Your task to perform on an android device: Add "macbook air" to the cart on newegg Image 0: 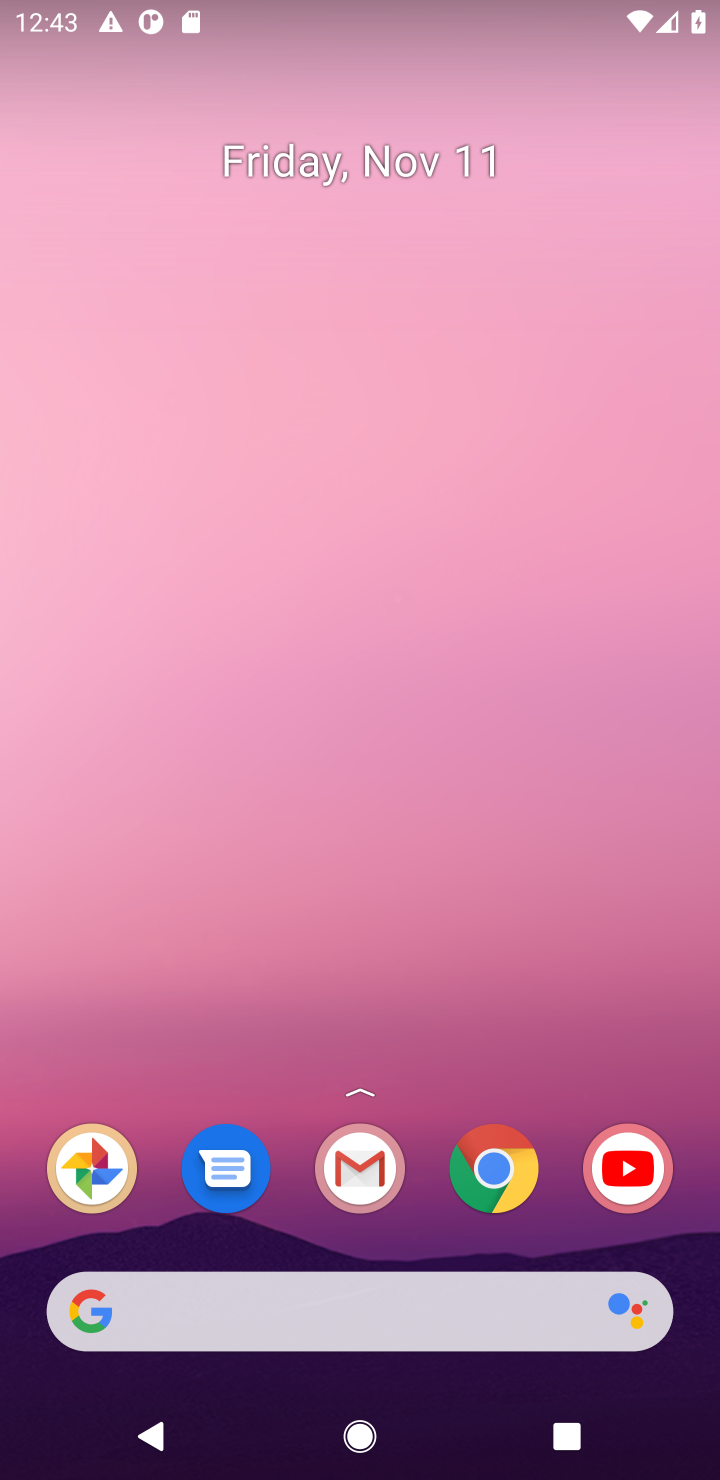
Step 0: click (502, 1170)
Your task to perform on an android device: Add "macbook air" to the cart on newegg Image 1: 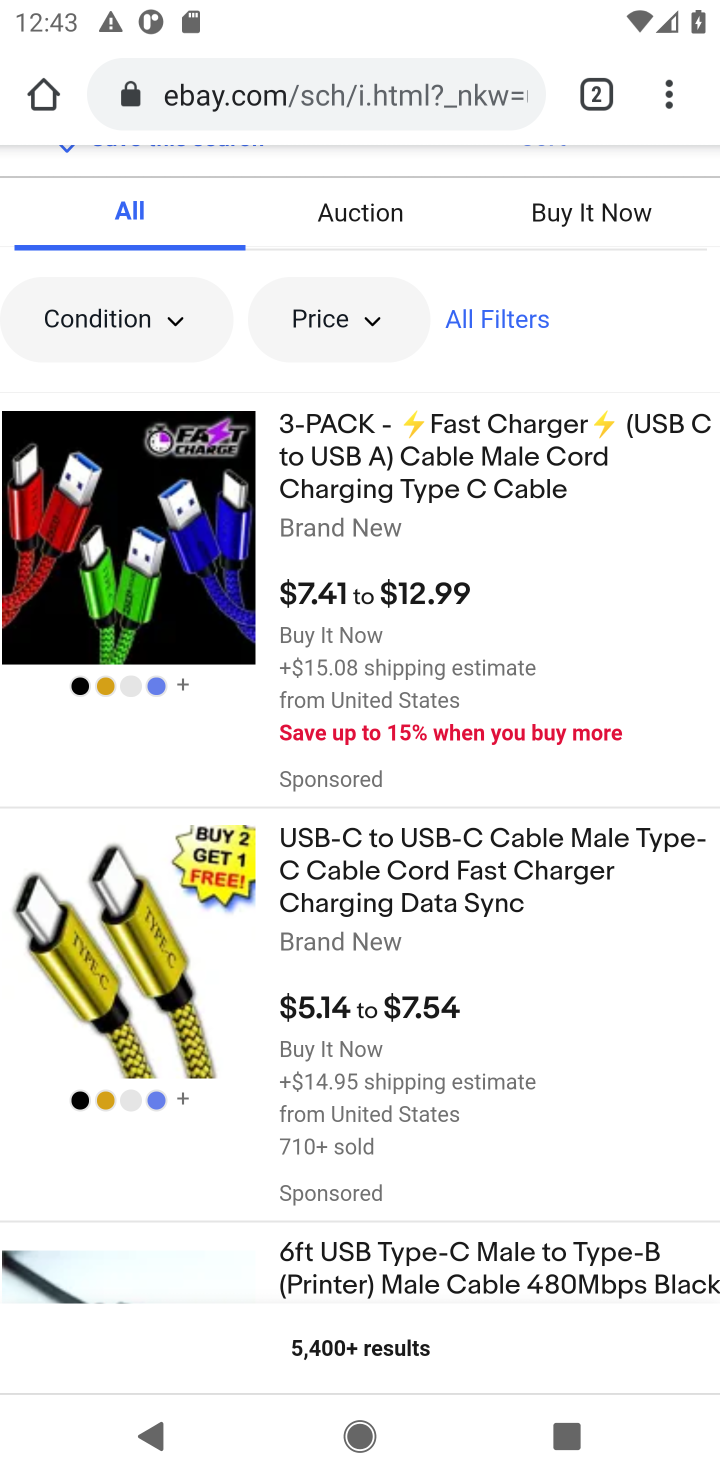
Step 1: click (300, 108)
Your task to perform on an android device: Add "macbook air" to the cart on newegg Image 2: 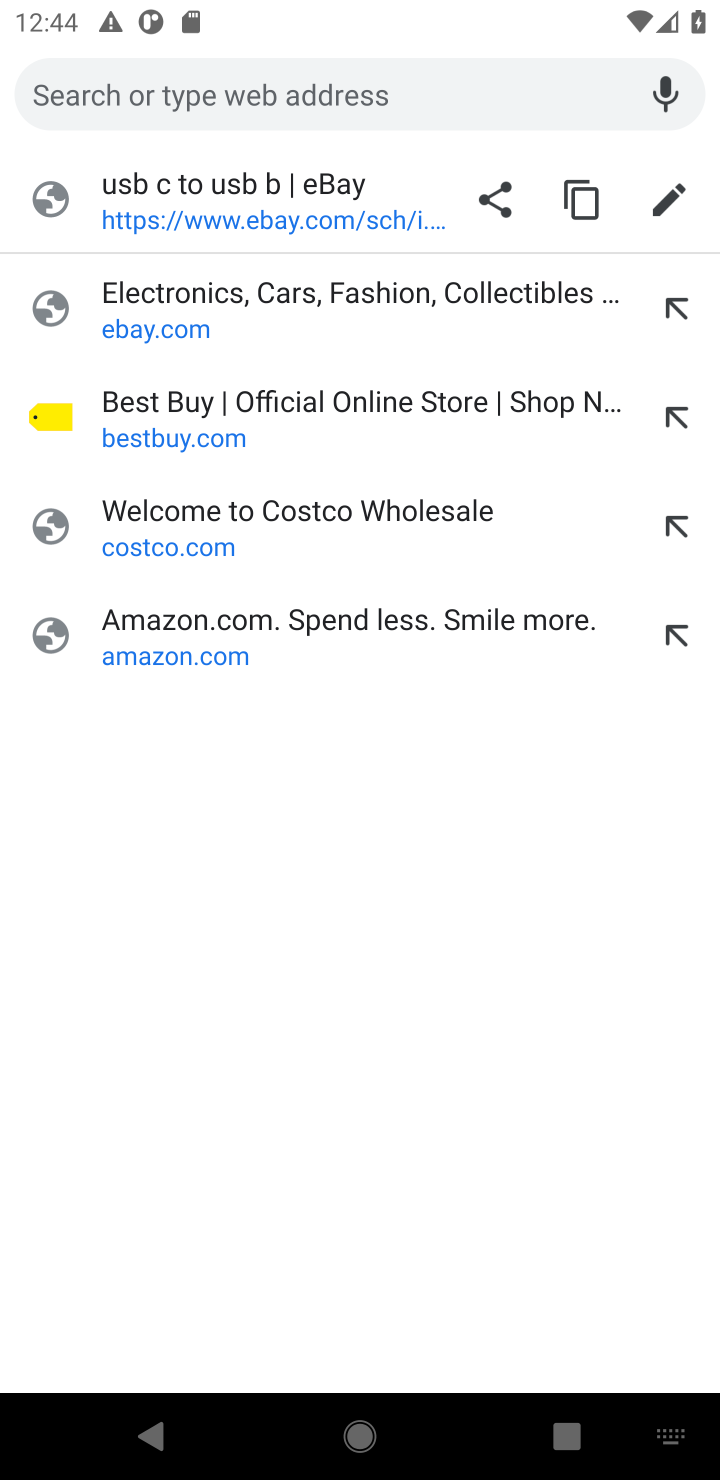
Step 2: type "newegg.com"
Your task to perform on an android device: Add "macbook air" to the cart on newegg Image 3: 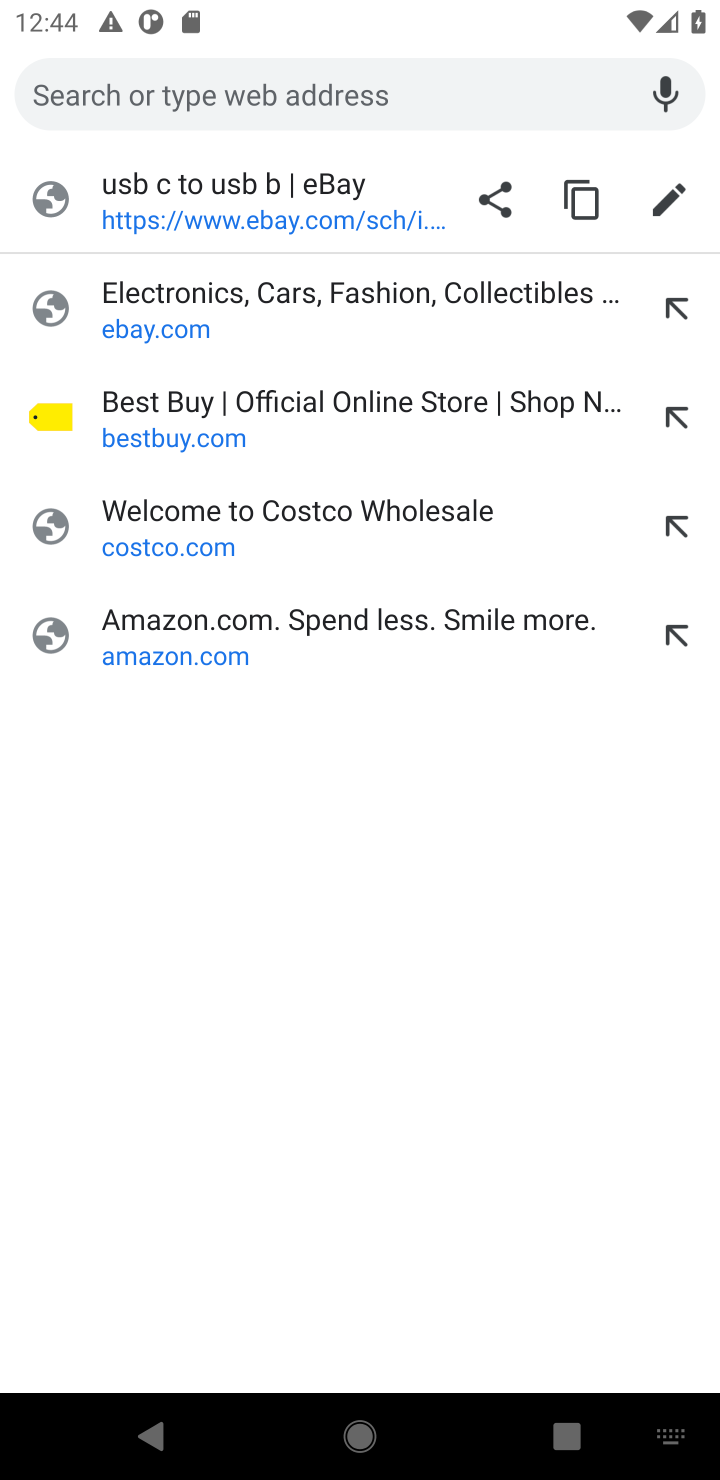
Step 3: click (131, 107)
Your task to perform on an android device: Add "macbook air" to the cart on newegg Image 4: 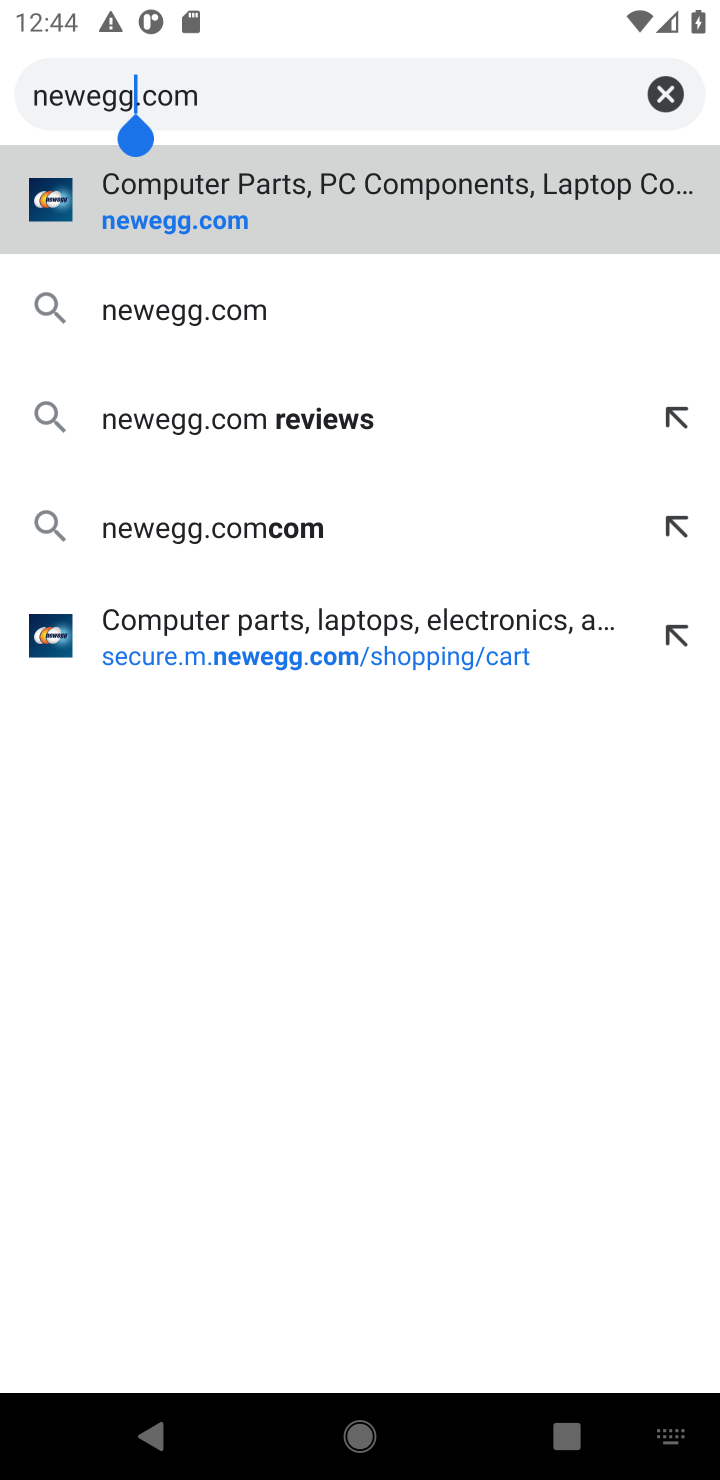
Step 4: click (165, 250)
Your task to perform on an android device: Add "macbook air" to the cart on newegg Image 5: 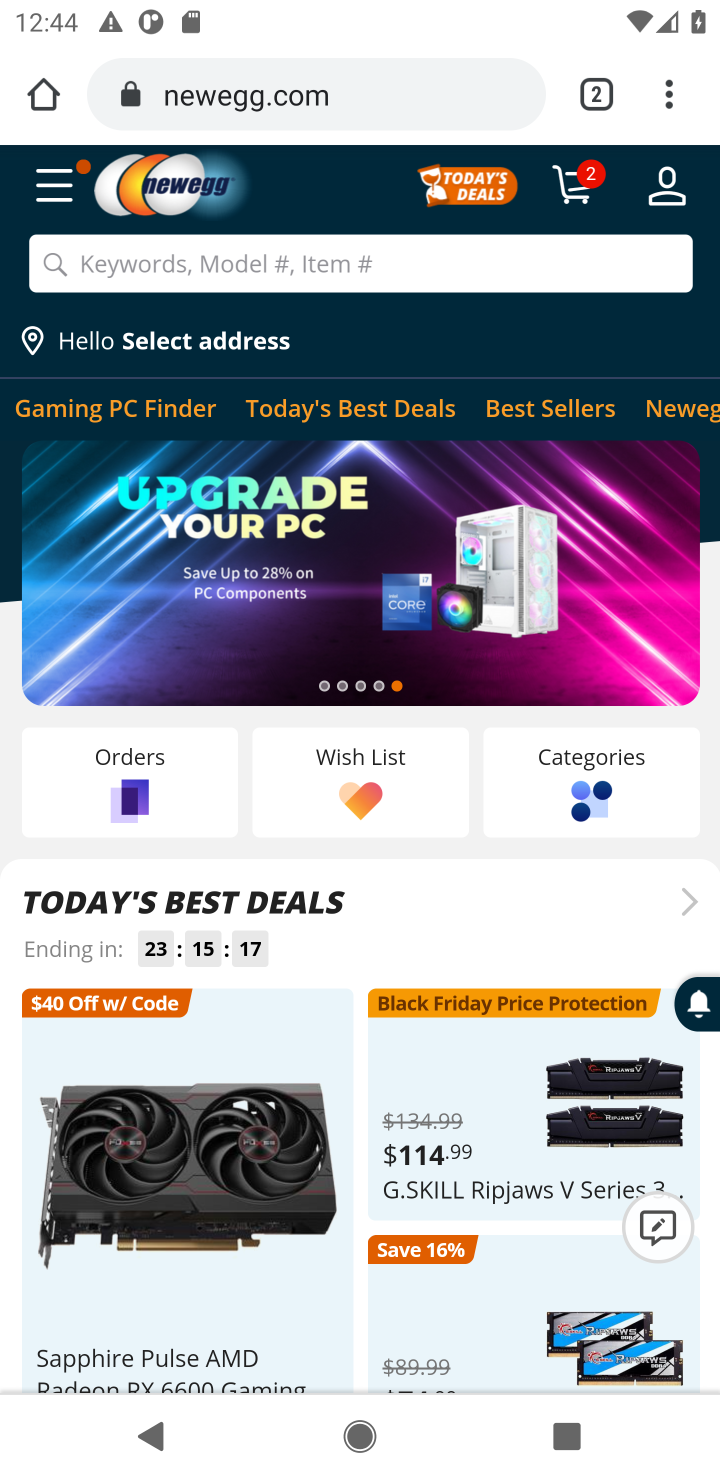
Step 5: click (204, 261)
Your task to perform on an android device: Add "macbook air" to the cart on newegg Image 6: 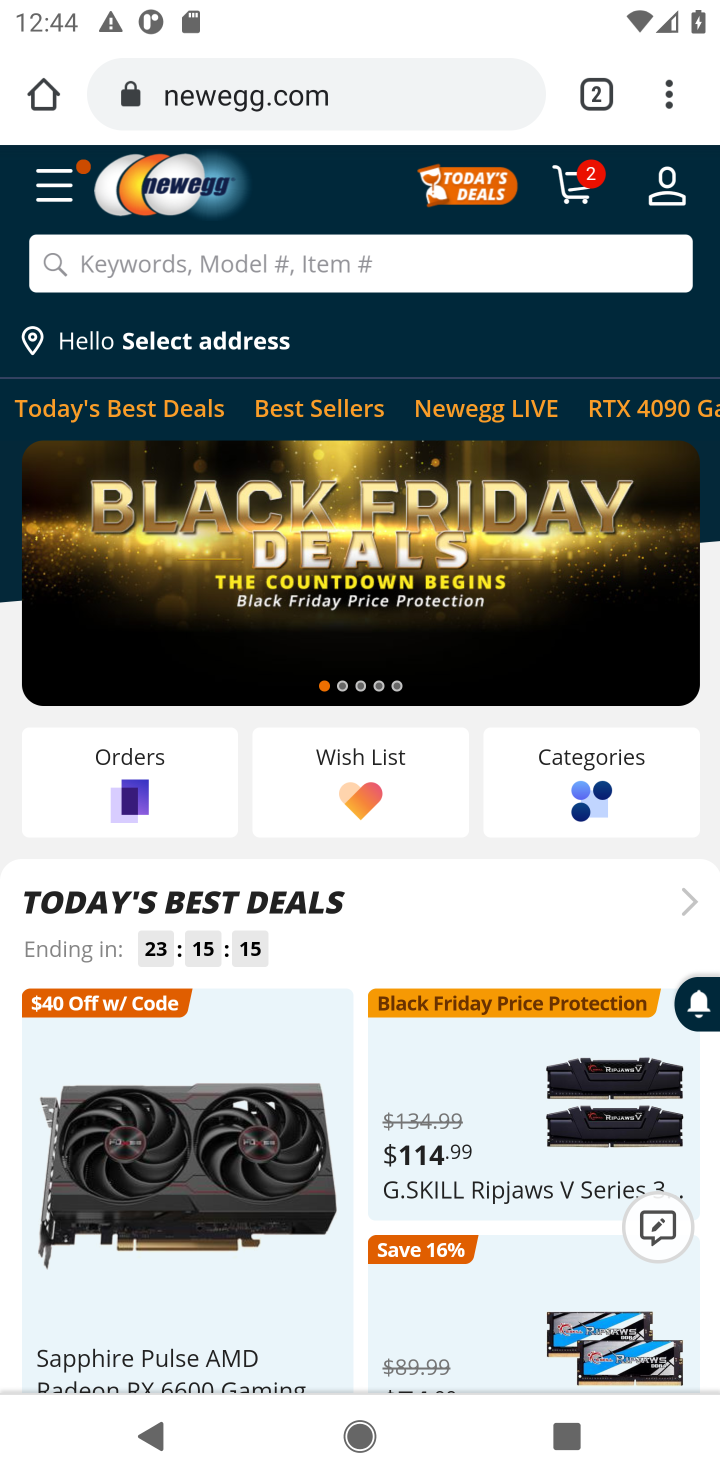
Step 6: type "macbook air"
Your task to perform on an android device: Add "macbook air" to the cart on newegg Image 7: 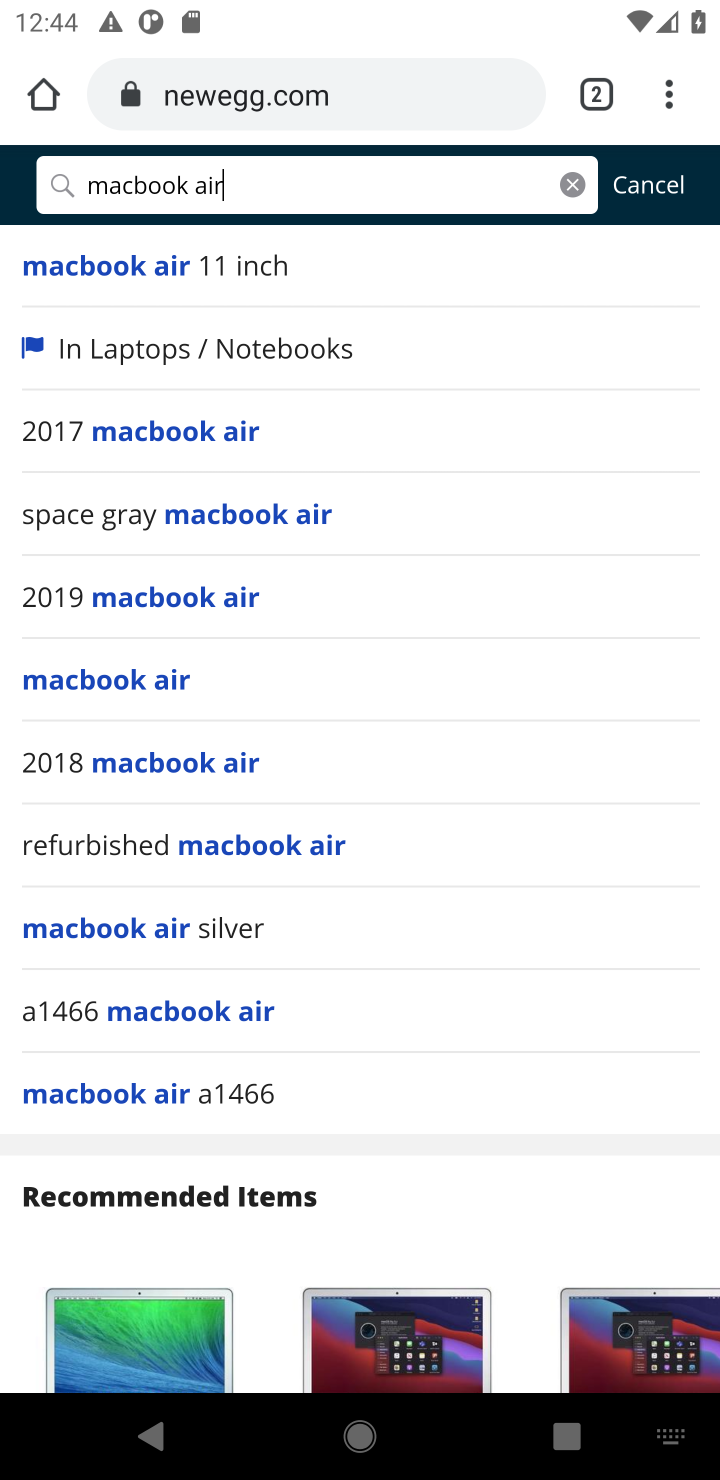
Step 7: click (112, 683)
Your task to perform on an android device: Add "macbook air" to the cart on newegg Image 8: 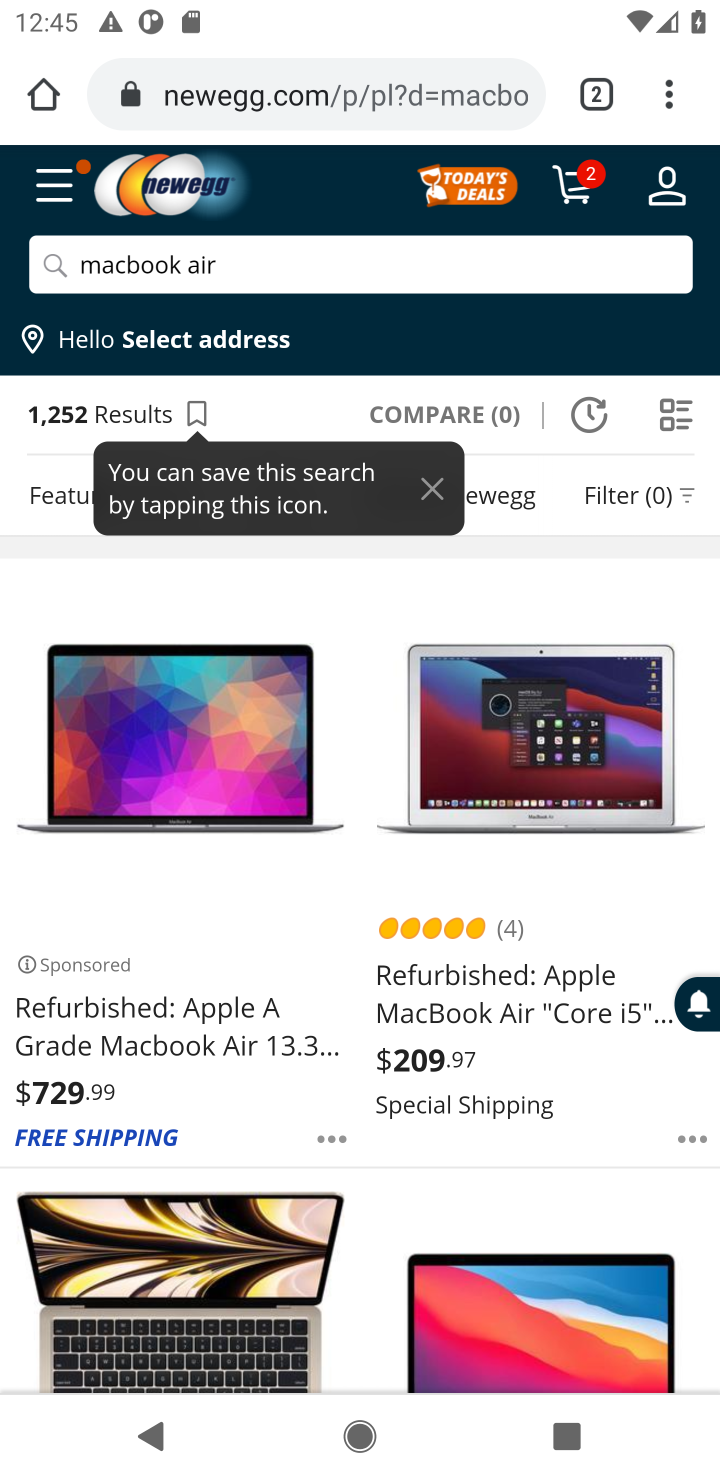
Step 8: click (113, 806)
Your task to perform on an android device: Add "macbook air" to the cart on newegg Image 9: 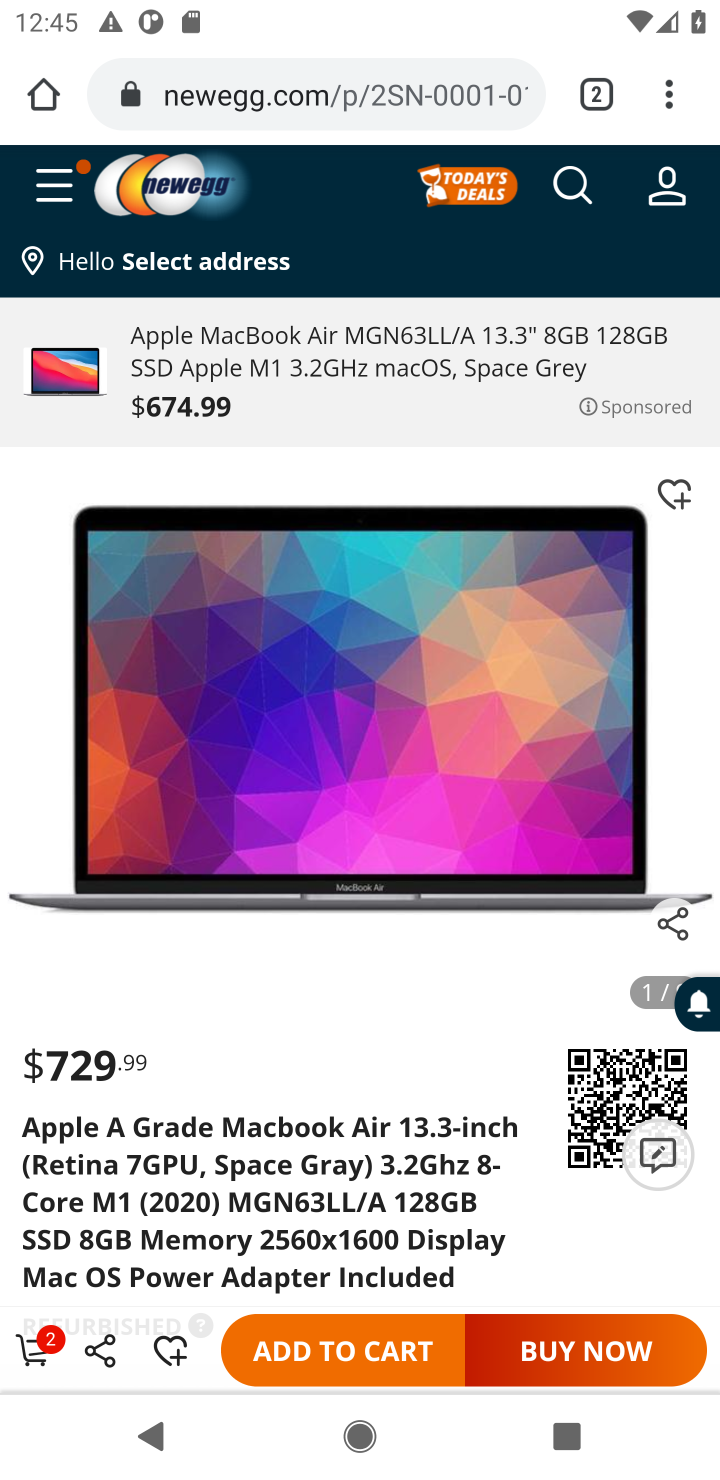
Step 9: click (363, 1355)
Your task to perform on an android device: Add "macbook air" to the cart on newegg Image 10: 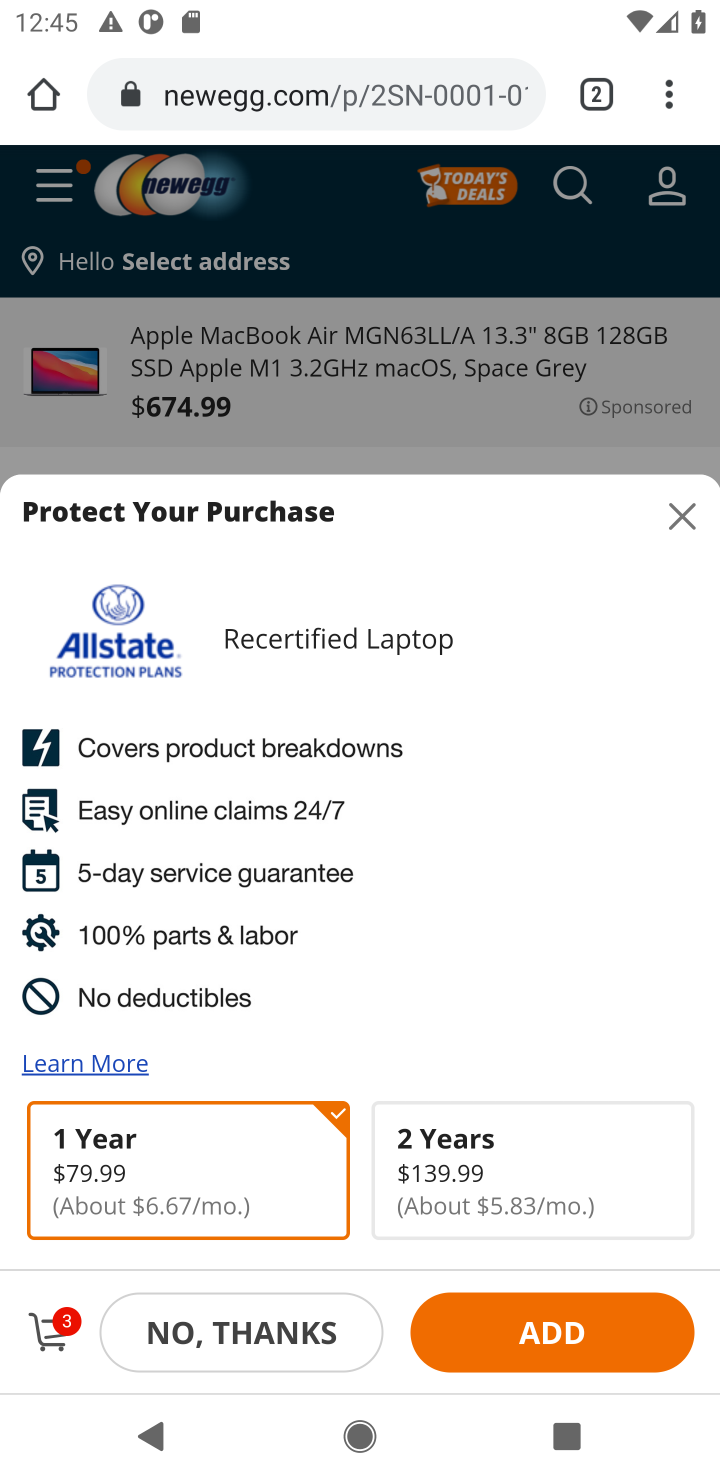
Step 10: task complete